Your task to perform on an android device: turn notification dots off Image 0: 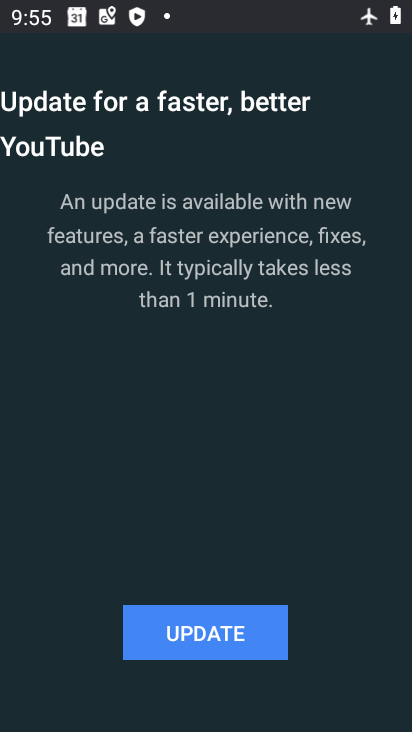
Step 0: press home button
Your task to perform on an android device: turn notification dots off Image 1: 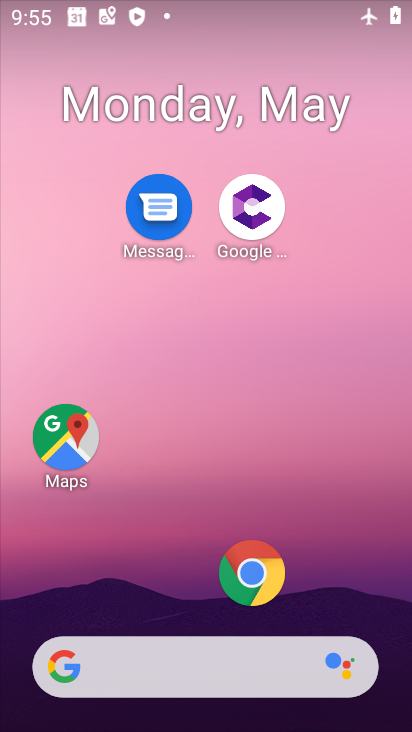
Step 1: drag from (129, 683) to (129, 110)
Your task to perform on an android device: turn notification dots off Image 2: 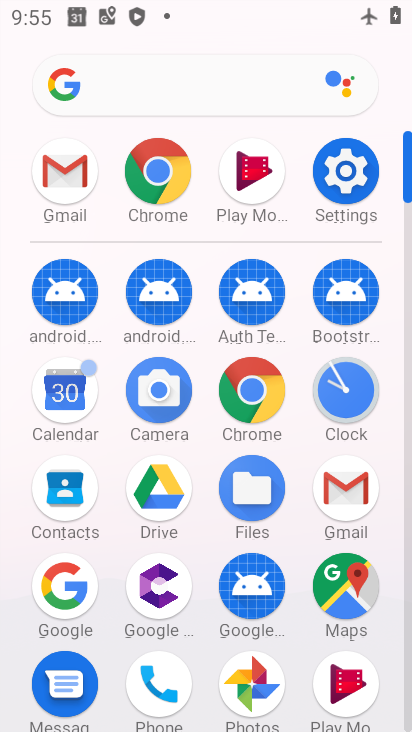
Step 2: click (339, 175)
Your task to perform on an android device: turn notification dots off Image 3: 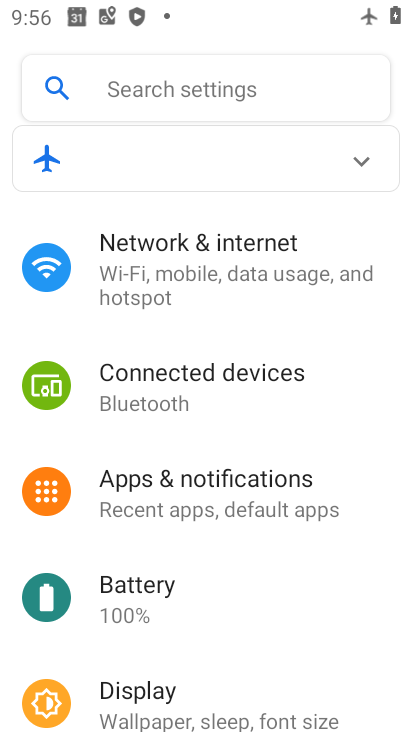
Step 3: click (207, 491)
Your task to perform on an android device: turn notification dots off Image 4: 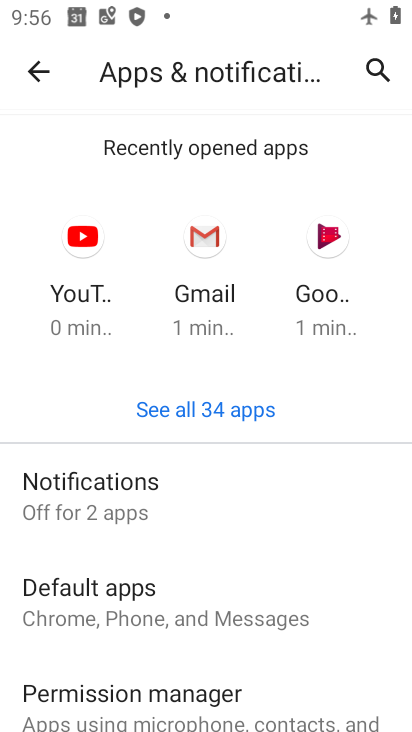
Step 4: click (145, 499)
Your task to perform on an android device: turn notification dots off Image 5: 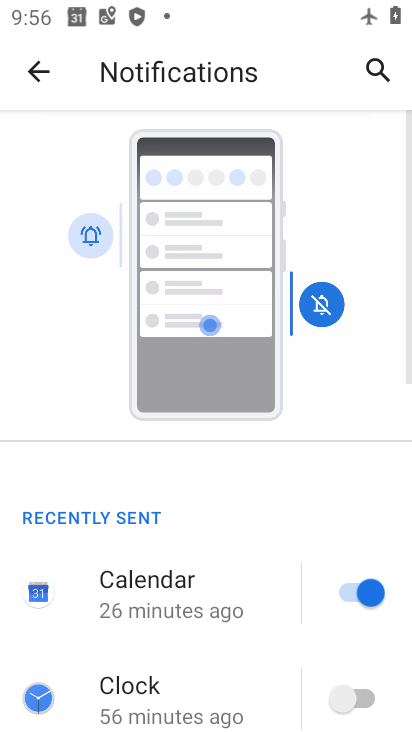
Step 5: drag from (154, 581) to (230, 183)
Your task to perform on an android device: turn notification dots off Image 6: 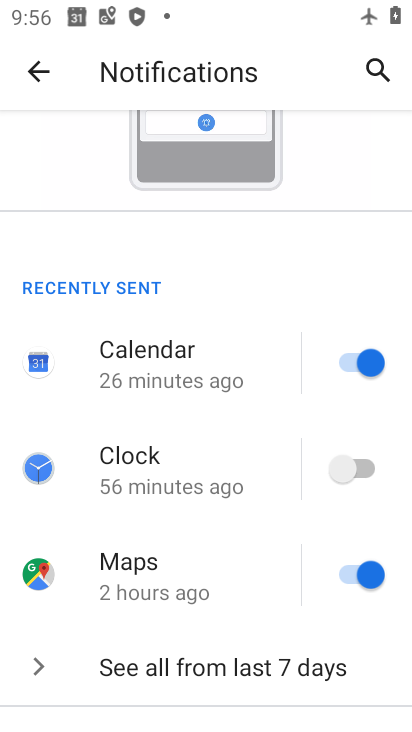
Step 6: drag from (156, 598) to (209, 197)
Your task to perform on an android device: turn notification dots off Image 7: 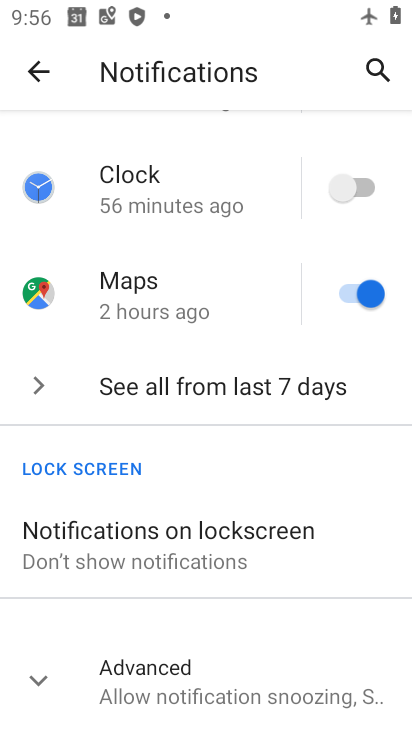
Step 7: click (181, 669)
Your task to perform on an android device: turn notification dots off Image 8: 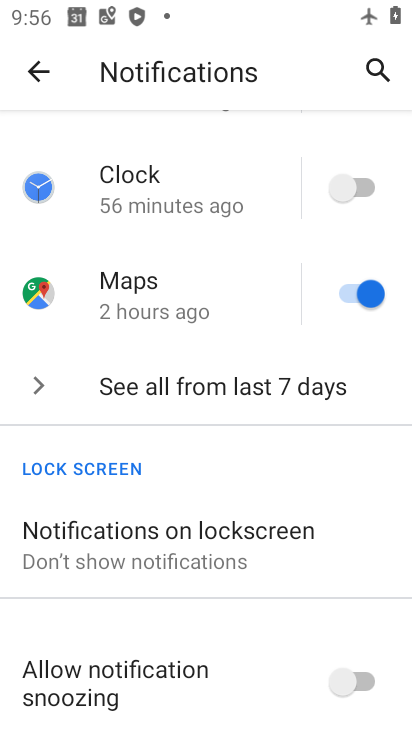
Step 8: drag from (172, 649) to (217, 259)
Your task to perform on an android device: turn notification dots off Image 9: 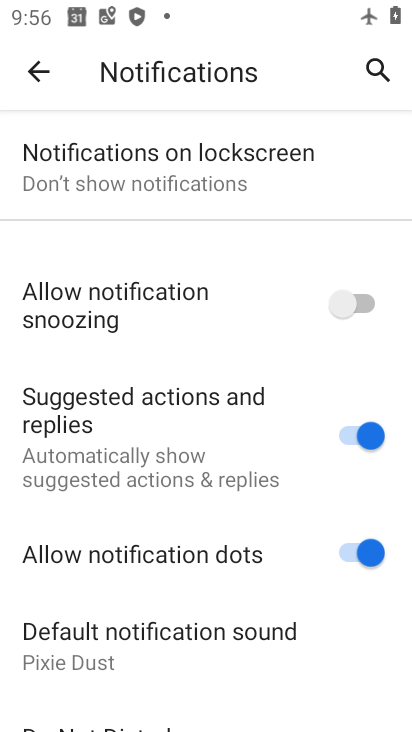
Step 9: click (343, 577)
Your task to perform on an android device: turn notification dots off Image 10: 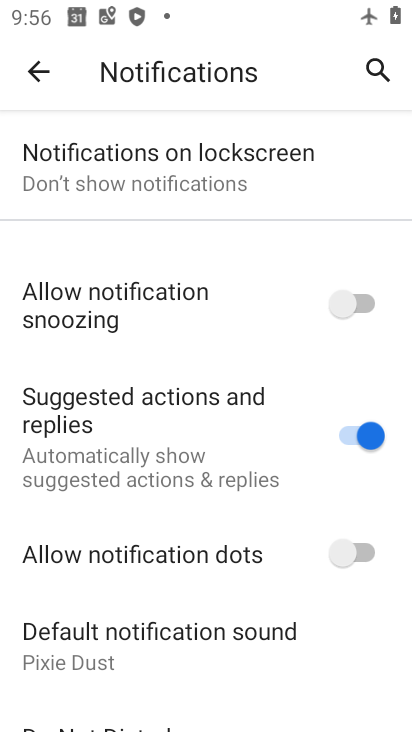
Step 10: task complete